Your task to perform on an android device: open app "PUBG MOBILE" (install if not already installed) Image 0: 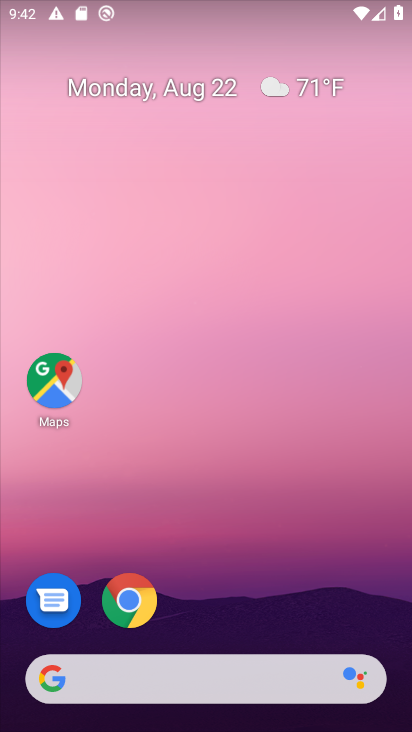
Step 0: drag from (223, 569) to (215, 93)
Your task to perform on an android device: open app "PUBG MOBILE" (install if not already installed) Image 1: 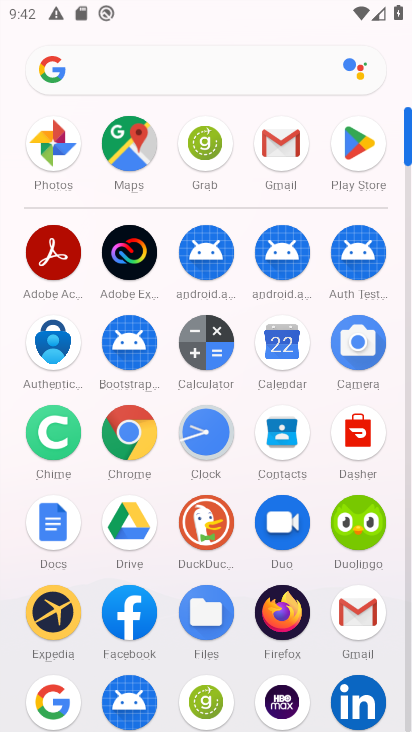
Step 1: click (340, 141)
Your task to perform on an android device: open app "PUBG MOBILE" (install if not already installed) Image 2: 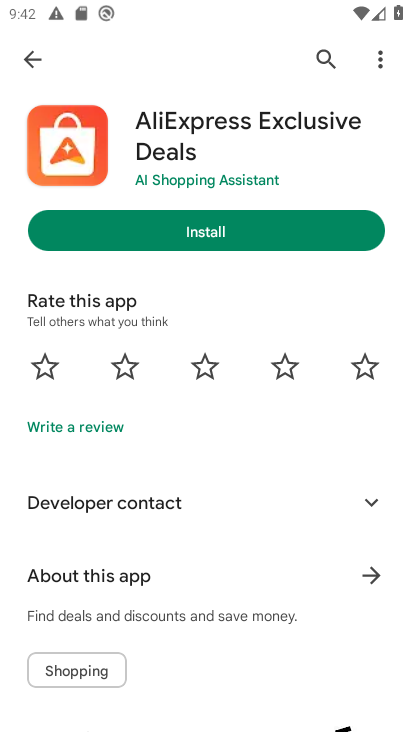
Step 2: click (312, 65)
Your task to perform on an android device: open app "PUBG MOBILE" (install if not already installed) Image 3: 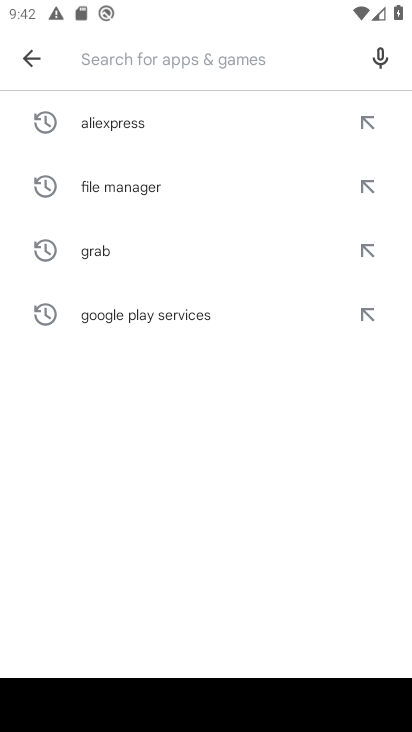
Step 3: click (313, 65)
Your task to perform on an android device: open app "PUBG MOBILE" (install if not already installed) Image 4: 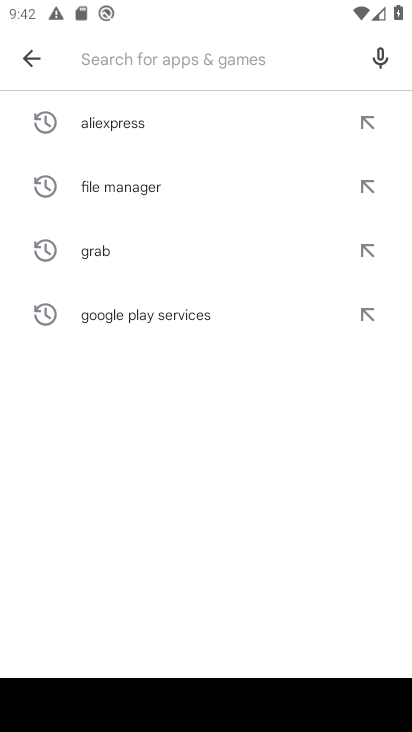
Step 4: type "PUBG MOBILE"
Your task to perform on an android device: open app "PUBG MOBILE" (install if not already installed) Image 5: 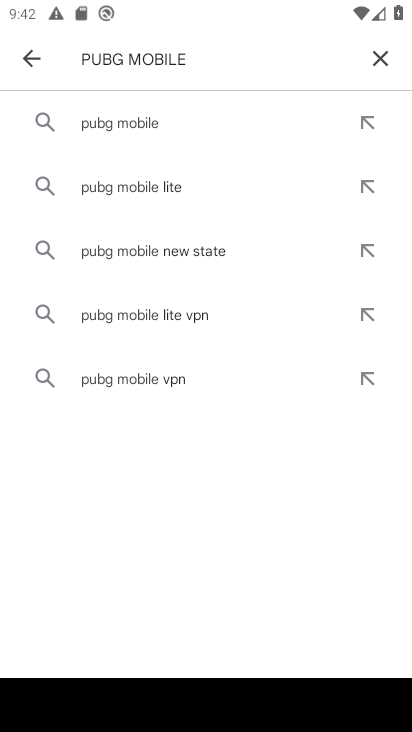
Step 5: click (185, 119)
Your task to perform on an android device: open app "PUBG MOBILE" (install if not already installed) Image 6: 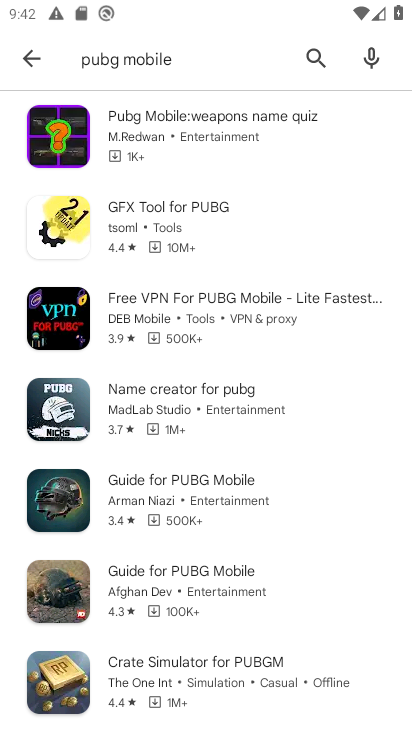
Step 6: task complete